Your task to perform on an android device: What's the news in Bangladesh? Image 0: 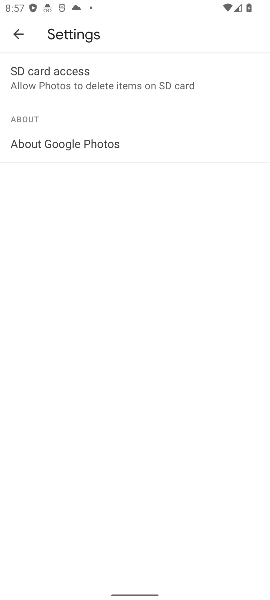
Step 0: press home button
Your task to perform on an android device: What's the news in Bangladesh? Image 1: 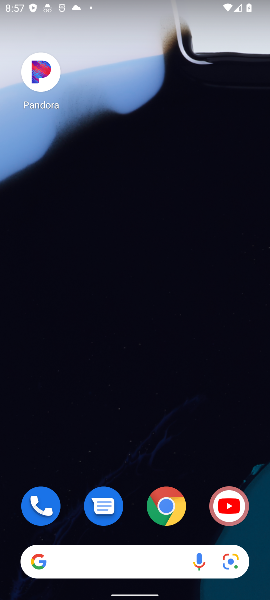
Step 1: click (163, 507)
Your task to perform on an android device: What's the news in Bangladesh? Image 2: 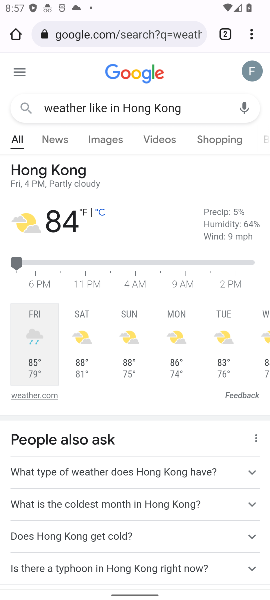
Step 2: click (185, 31)
Your task to perform on an android device: What's the news in Bangladesh? Image 3: 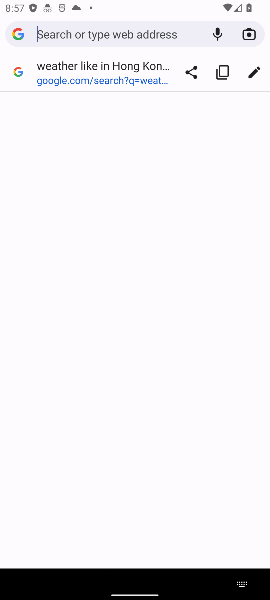
Step 3: type " news in Bangladesh"
Your task to perform on an android device: What's the news in Bangladesh? Image 4: 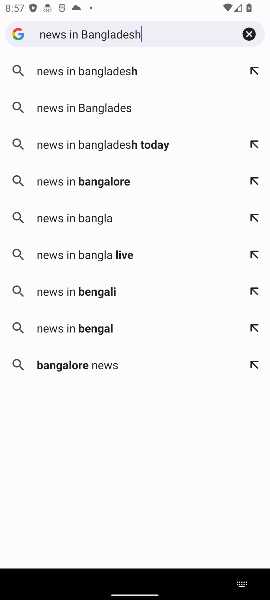
Step 4: press enter
Your task to perform on an android device: What's the news in Bangladesh? Image 5: 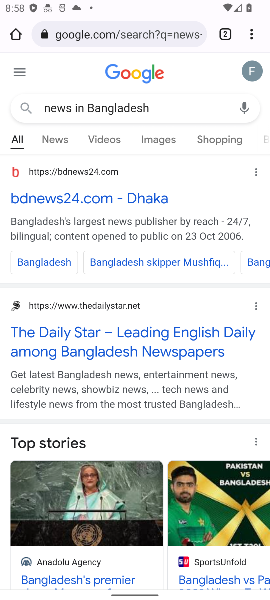
Step 5: click (57, 136)
Your task to perform on an android device: What's the news in Bangladesh? Image 6: 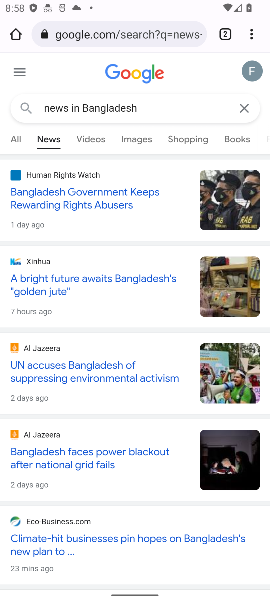
Step 6: task complete